Your task to perform on an android device: Clear the cart on newegg.com. Image 0: 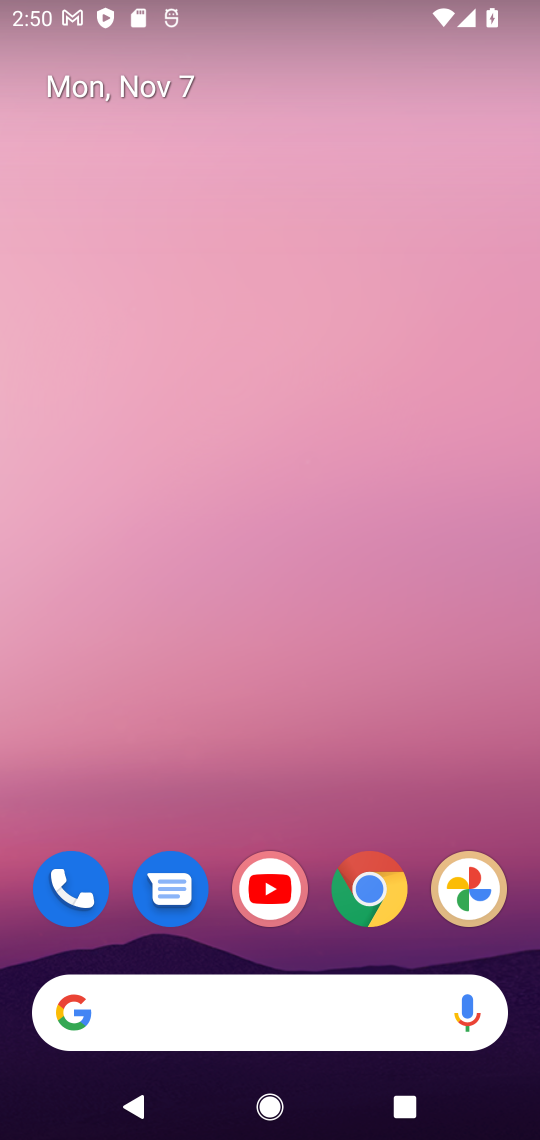
Step 0: click (363, 908)
Your task to perform on an android device: Clear the cart on newegg.com. Image 1: 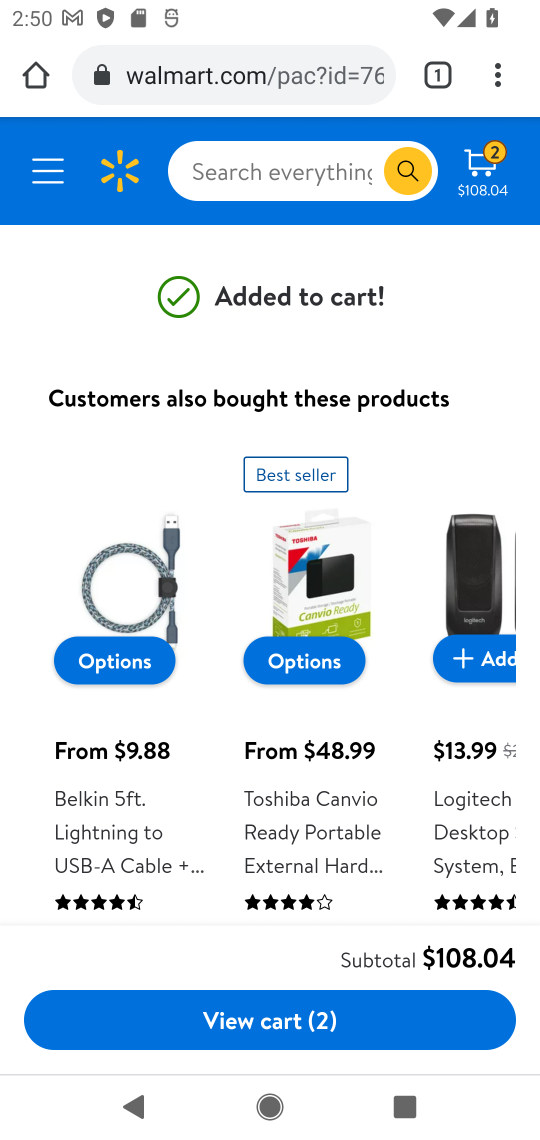
Step 1: click (242, 96)
Your task to perform on an android device: Clear the cart on newegg.com. Image 2: 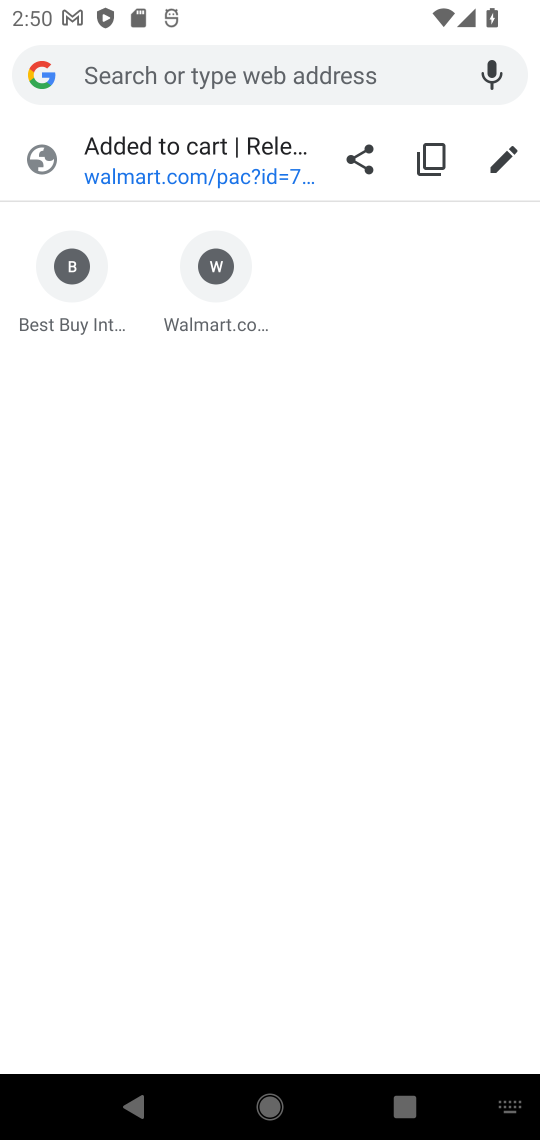
Step 2: type "newegg.com"
Your task to perform on an android device: Clear the cart on newegg.com. Image 3: 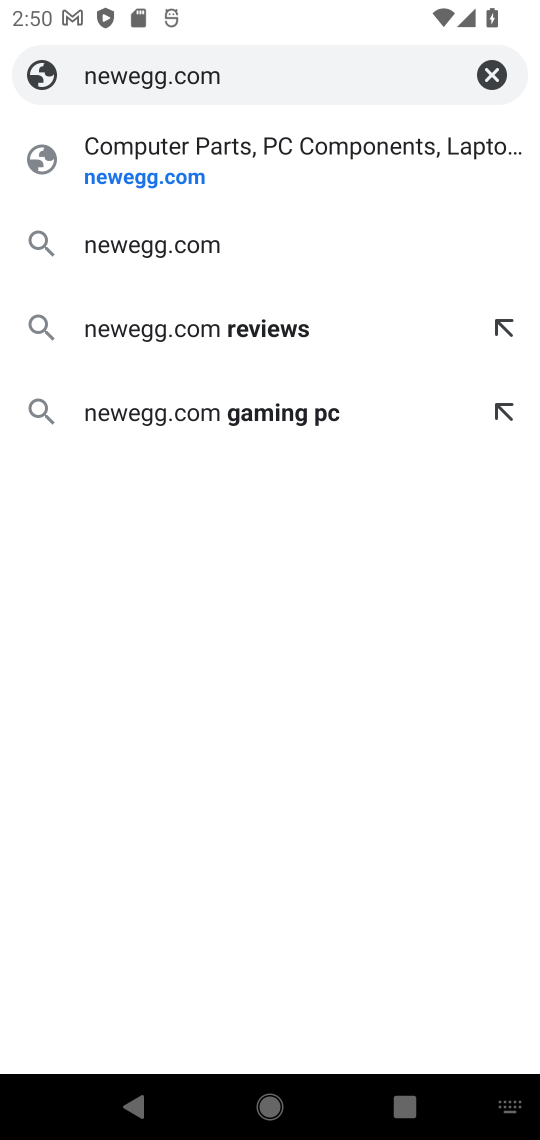
Step 3: press enter
Your task to perform on an android device: Clear the cart on newegg.com. Image 4: 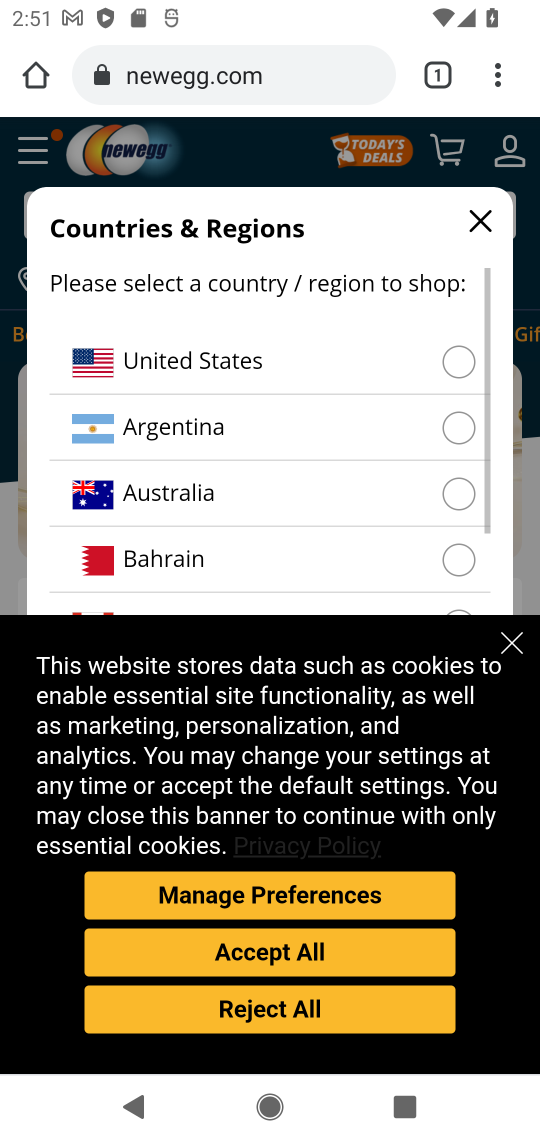
Step 4: click (323, 354)
Your task to perform on an android device: Clear the cart on newegg.com. Image 5: 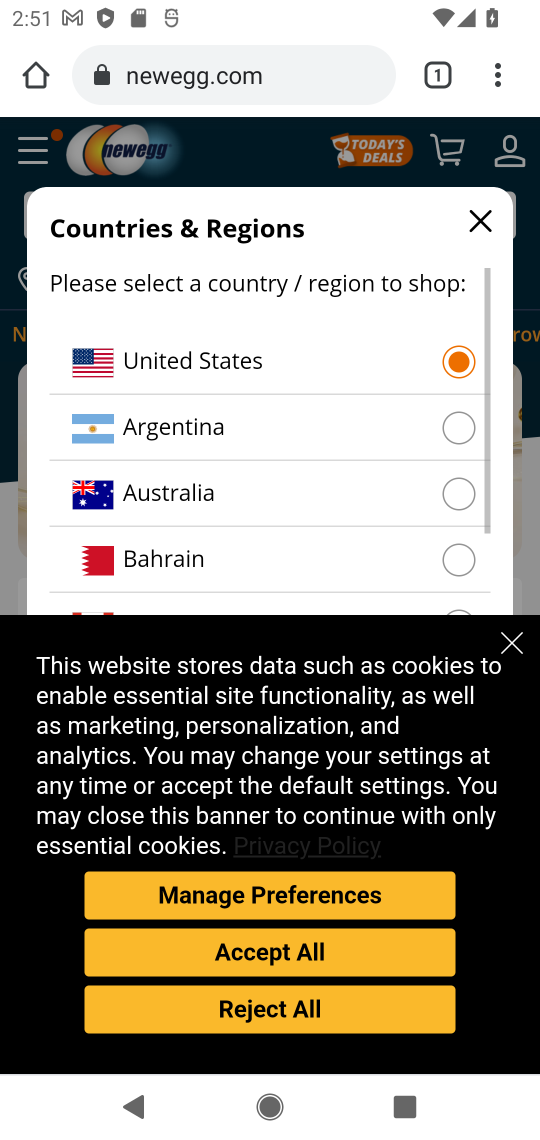
Step 5: click (283, 963)
Your task to perform on an android device: Clear the cart on newegg.com. Image 6: 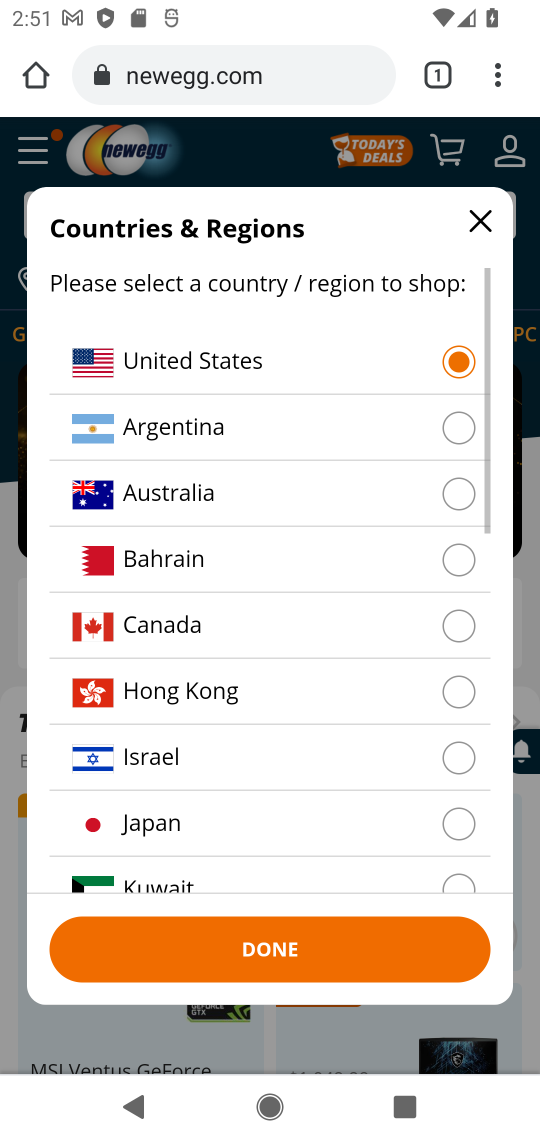
Step 6: click (301, 959)
Your task to perform on an android device: Clear the cart on newegg.com. Image 7: 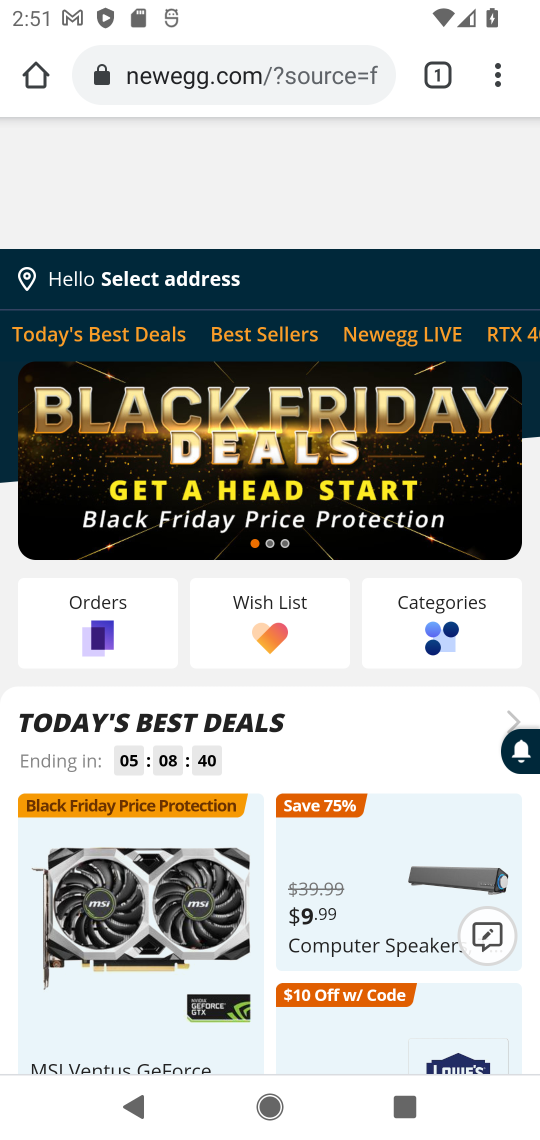
Step 7: click (441, 154)
Your task to perform on an android device: Clear the cart on newegg.com. Image 8: 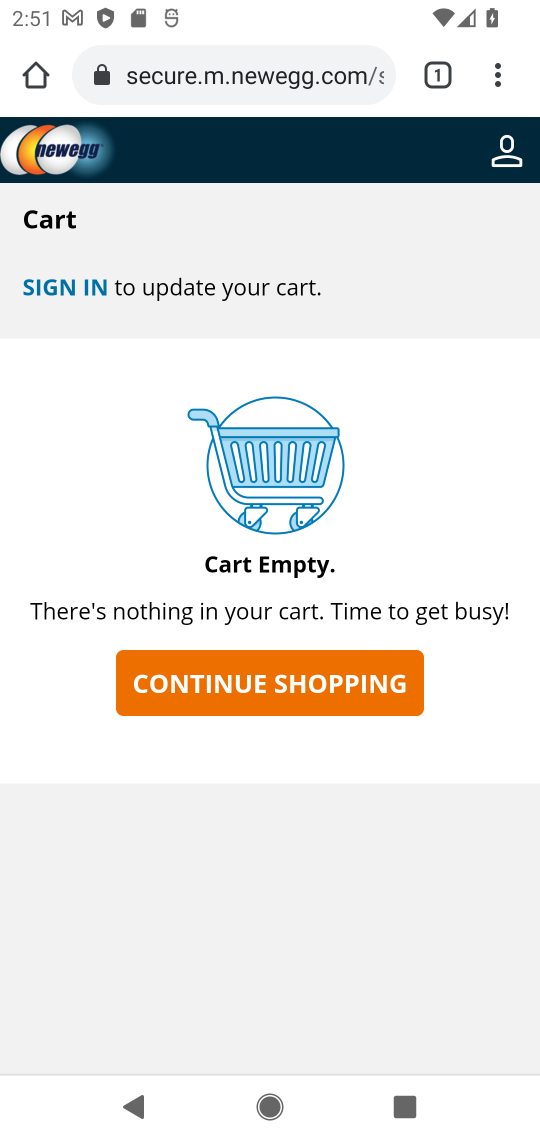
Step 8: task complete